Your task to perform on an android device: change the clock display to analog Image 0: 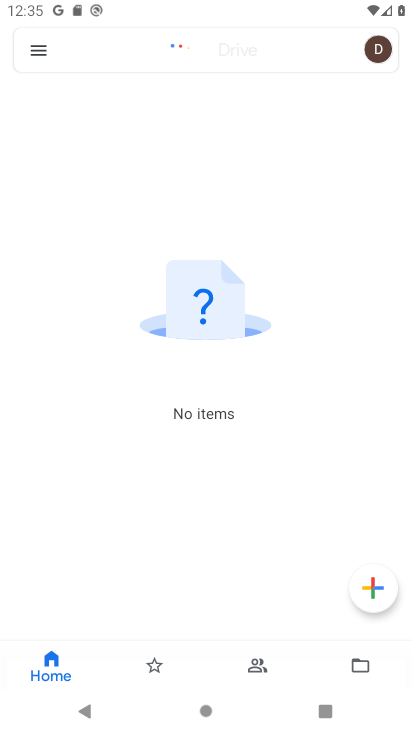
Step 0: press back button
Your task to perform on an android device: change the clock display to analog Image 1: 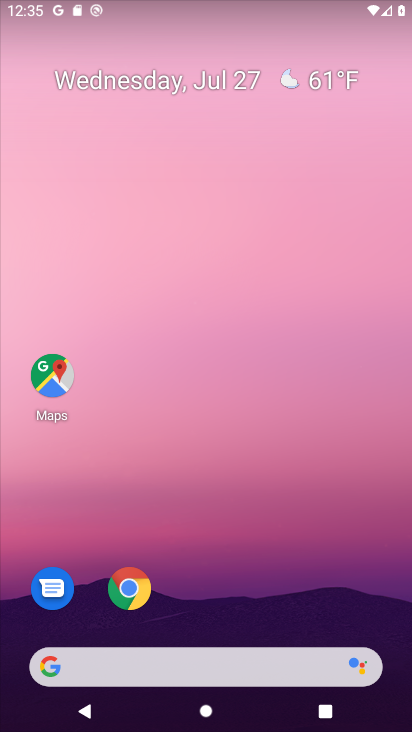
Step 1: drag from (397, 717) to (356, 103)
Your task to perform on an android device: change the clock display to analog Image 2: 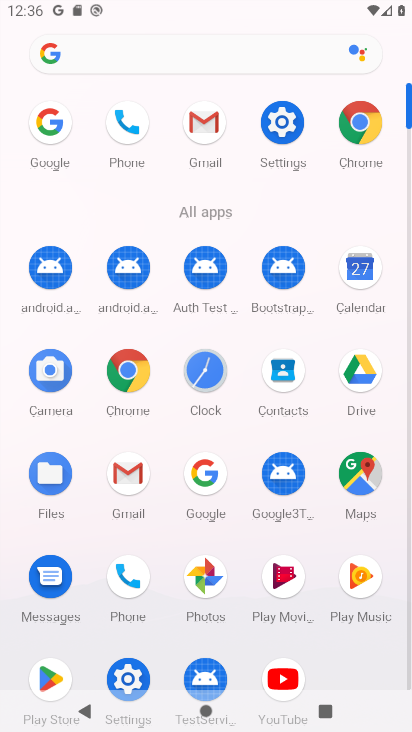
Step 2: press home button
Your task to perform on an android device: change the clock display to analog Image 3: 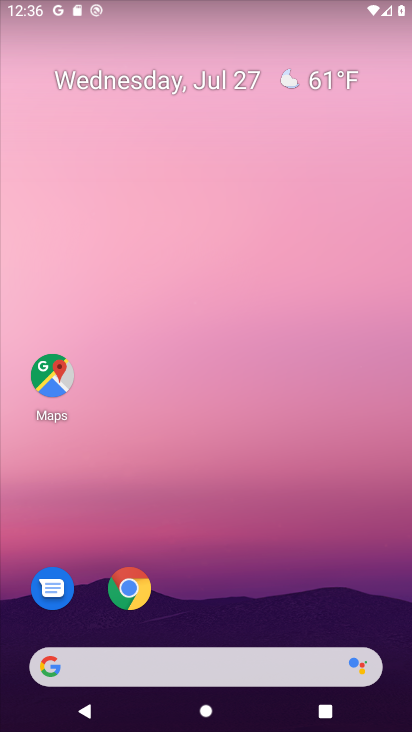
Step 3: drag from (403, 726) to (338, 134)
Your task to perform on an android device: change the clock display to analog Image 4: 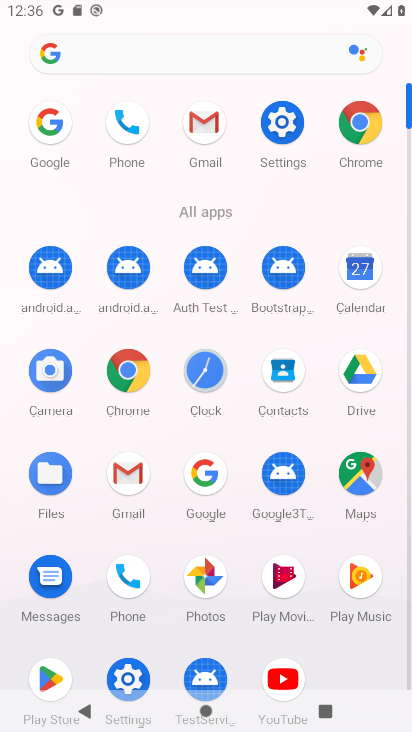
Step 4: click (210, 367)
Your task to perform on an android device: change the clock display to analog Image 5: 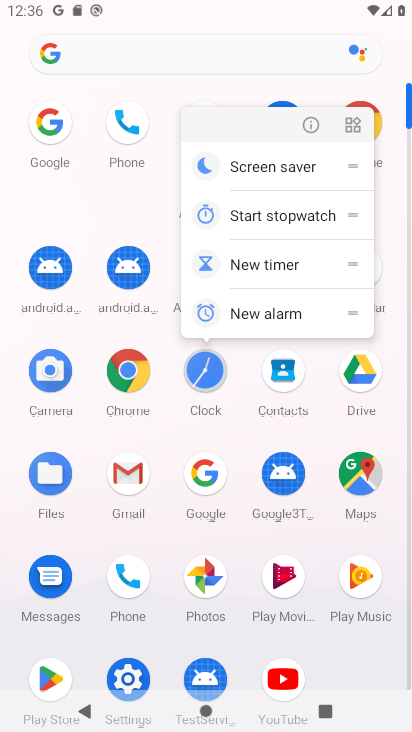
Step 5: click (191, 370)
Your task to perform on an android device: change the clock display to analog Image 6: 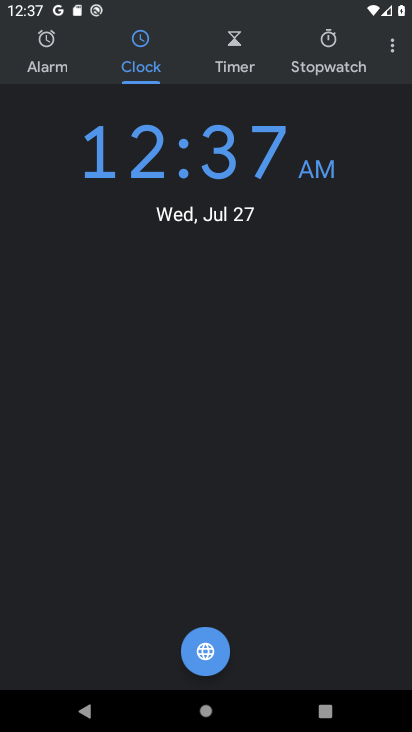
Step 6: click (391, 45)
Your task to perform on an android device: change the clock display to analog Image 7: 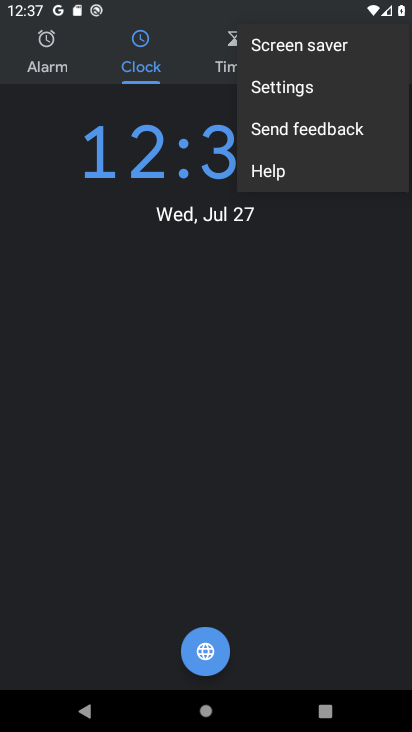
Step 7: click (265, 90)
Your task to perform on an android device: change the clock display to analog Image 8: 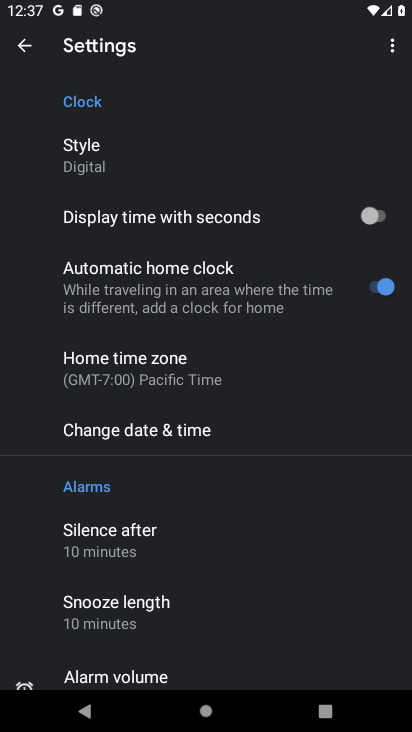
Step 8: click (80, 164)
Your task to perform on an android device: change the clock display to analog Image 9: 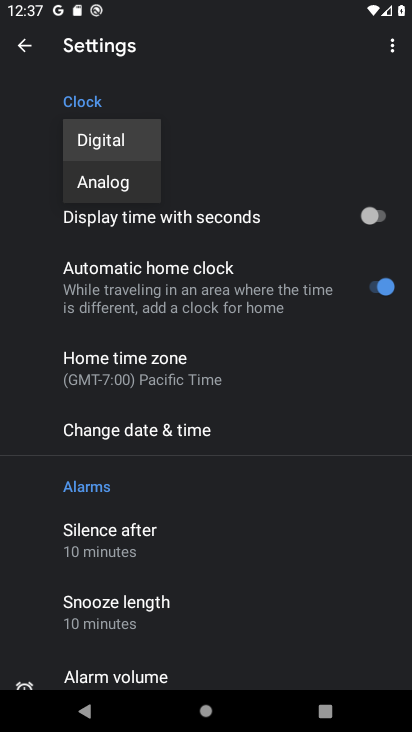
Step 9: click (94, 183)
Your task to perform on an android device: change the clock display to analog Image 10: 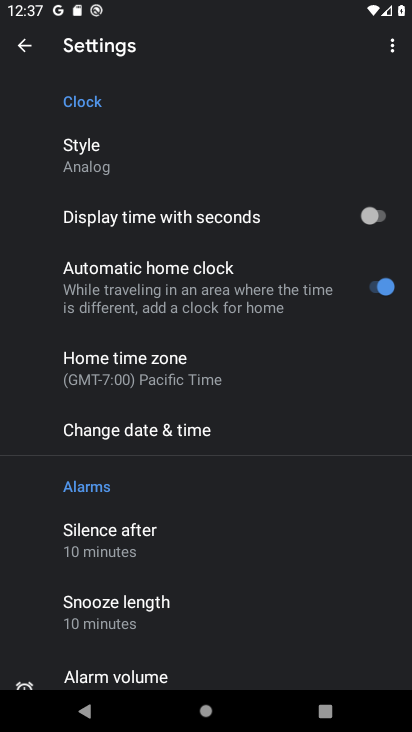
Step 10: task complete